Your task to perform on an android device: Go to network settings Image 0: 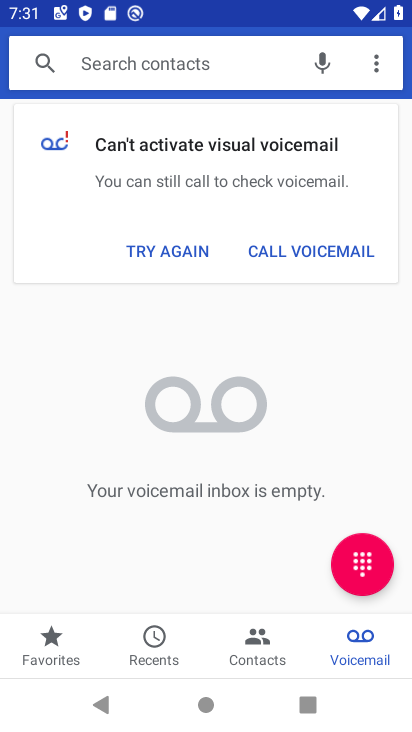
Step 0: press home button
Your task to perform on an android device: Go to network settings Image 1: 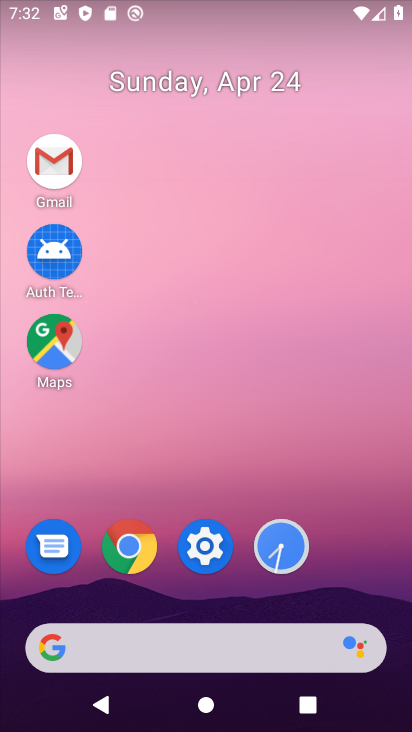
Step 1: click (202, 538)
Your task to perform on an android device: Go to network settings Image 2: 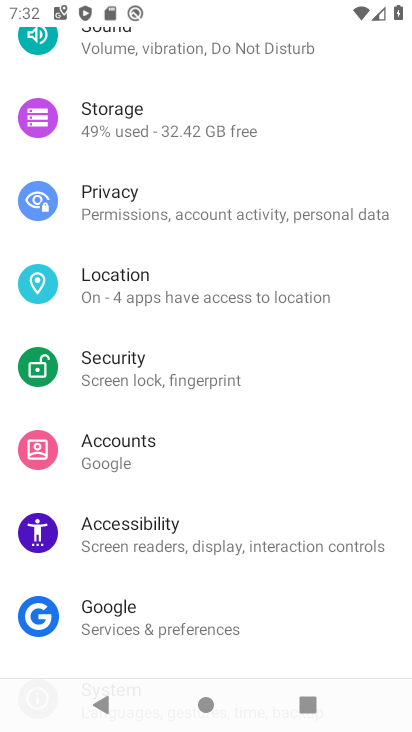
Step 2: drag from (278, 89) to (363, 729)
Your task to perform on an android device: Go to network settings Image 3: 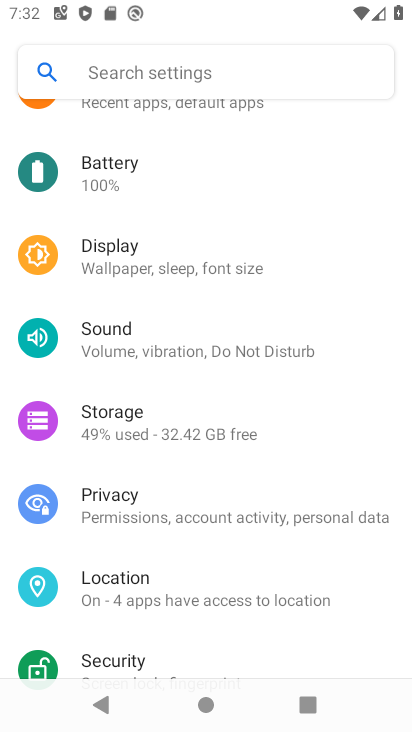
Step 3: drag from (214, 144) to (282, 697)
Your task to perform on an android device: Go to network settings Image 4: 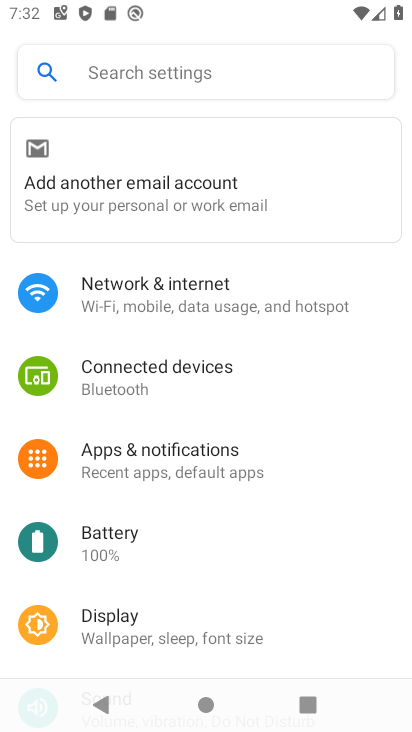
Step 4: click (147, 281)
Your task to perform on an android device: Go to network settings Image 5: 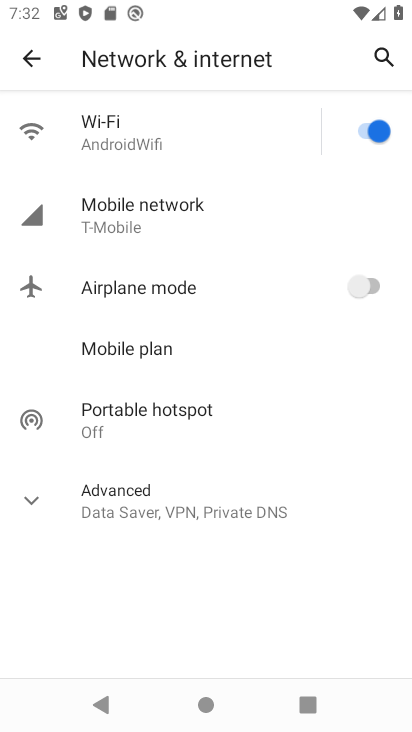
Step 5: task complete